Your task to perform on an android device: Open calendar and show me the fourth week of next month Image 0: 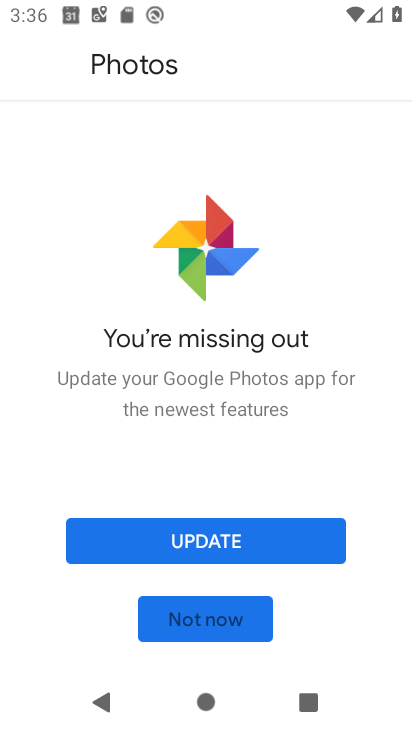
Step 0: press home button
Your task to perform on an android device: Open calendar and show me the fourth week of next month Image 1: 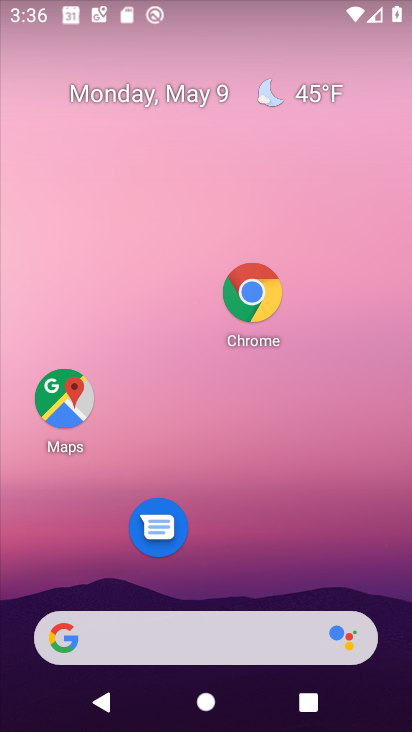
Step 1: drag from (232, 532) to (297, 117)
Your task to perform on an android device: Open calendar and show me the fourth week of next month Image 2: 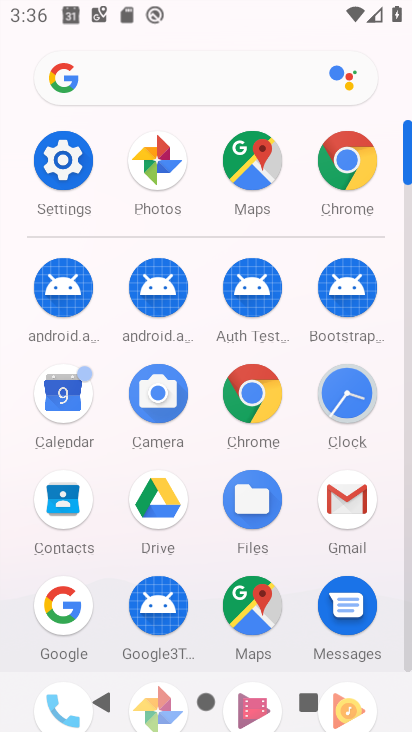
Step 2: click (74, 386)
Your task to perform on an android device: Open calendar and show me the fourth week of next month Image 3: 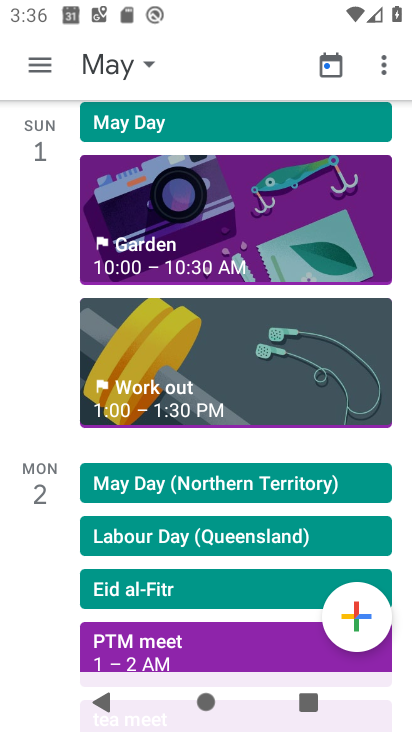
Step 3: click (151, 66)
Your task to perform on an android device: Open calendar and show me the fourth week of next month Image 4: 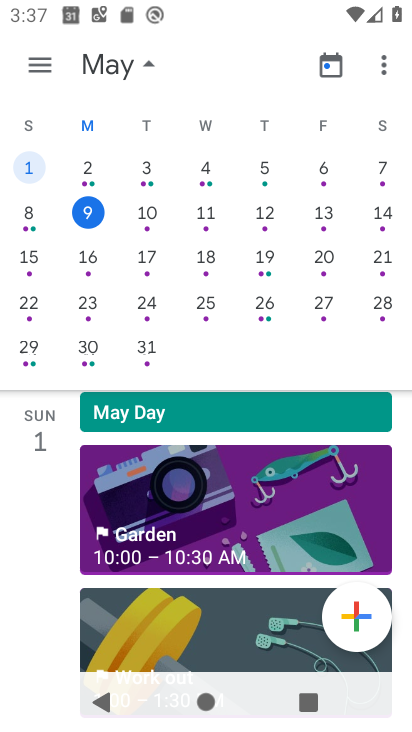
Step 4: drag from (325, 266) to (31, 141)
Your task to perform on an android device: Open calendar and show me the fourth week of next month Image 5: 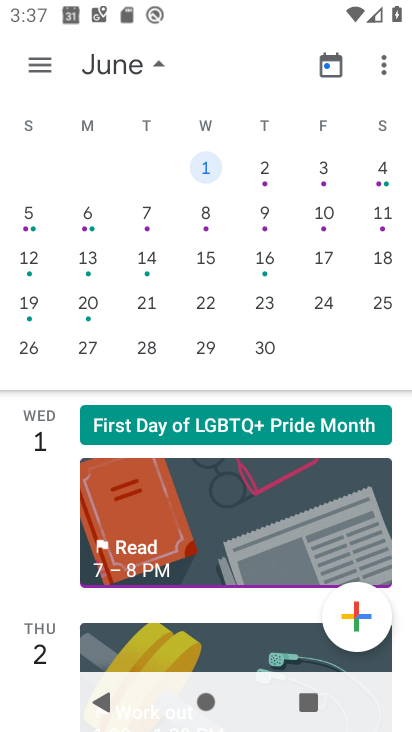
Step 5: click (26, 341)
Your task to perform on an android device: Open calendar and show me the fourth week of next month Image 6: 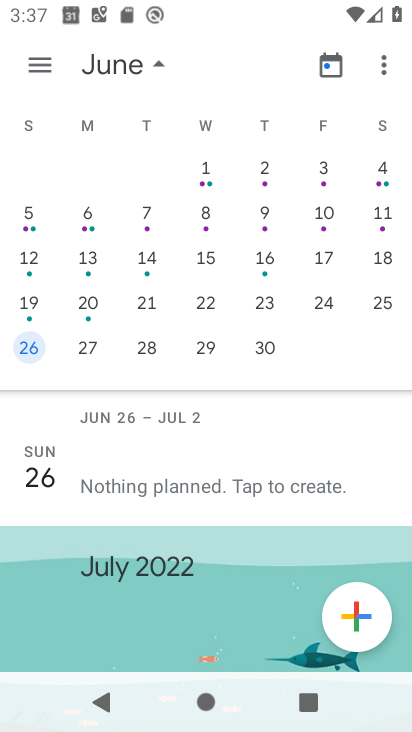
Step 6: task complete